Your task to perform on an android device: turn off priority inbox in the gmail app Image 0: 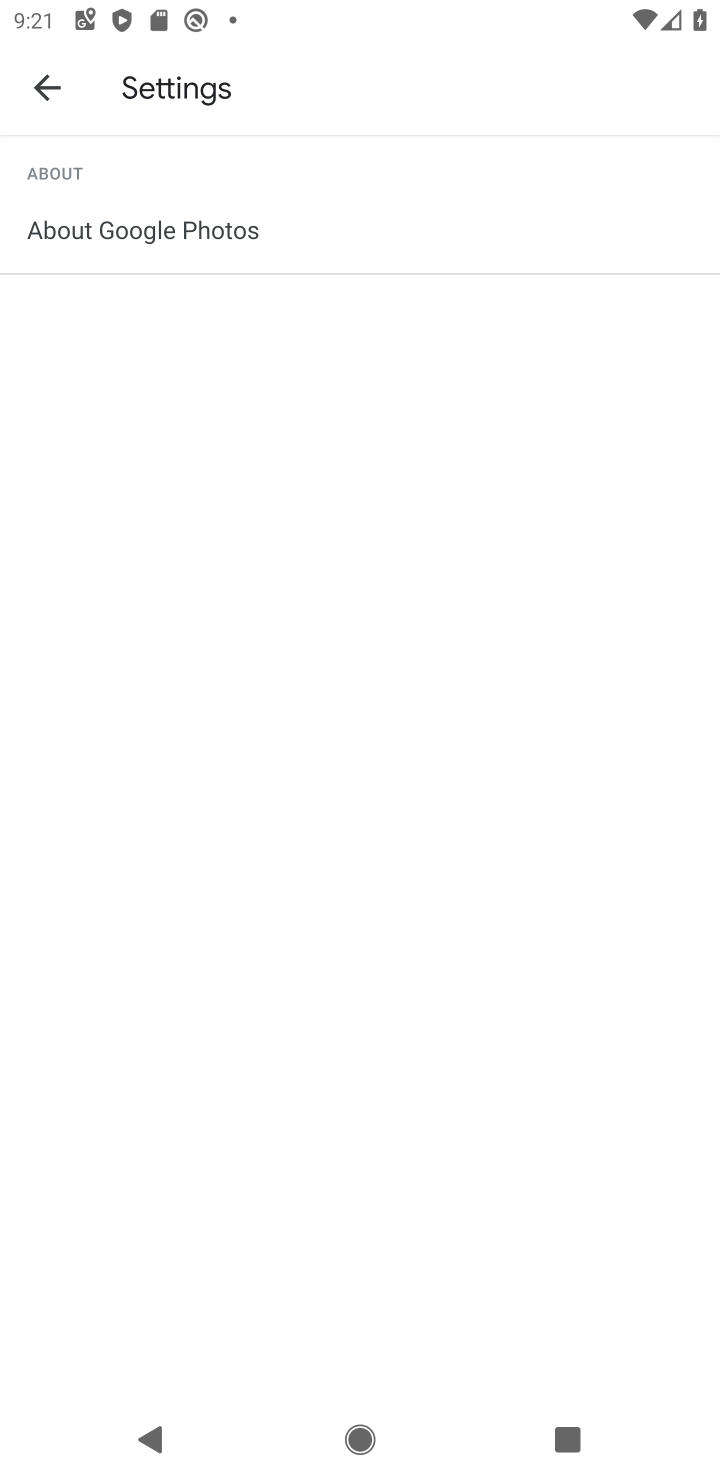
Step 0: press home button
Your task to perform on an android device: turn off priority inbox in the gmail app Image 1: 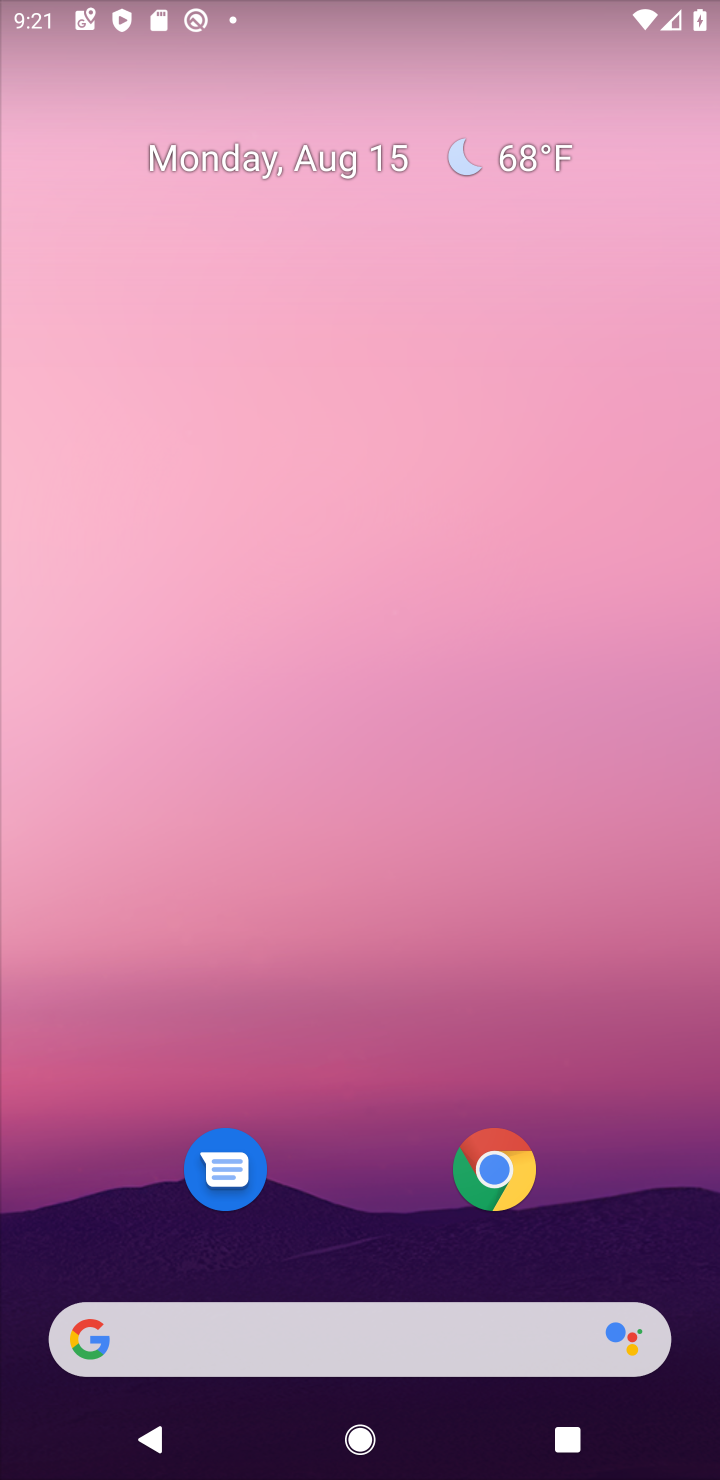
Step 1: drag from (403, 1310) to (668, 0)
Your task to perform on an android device: turn off priority inbox in the gmail app Image 2: 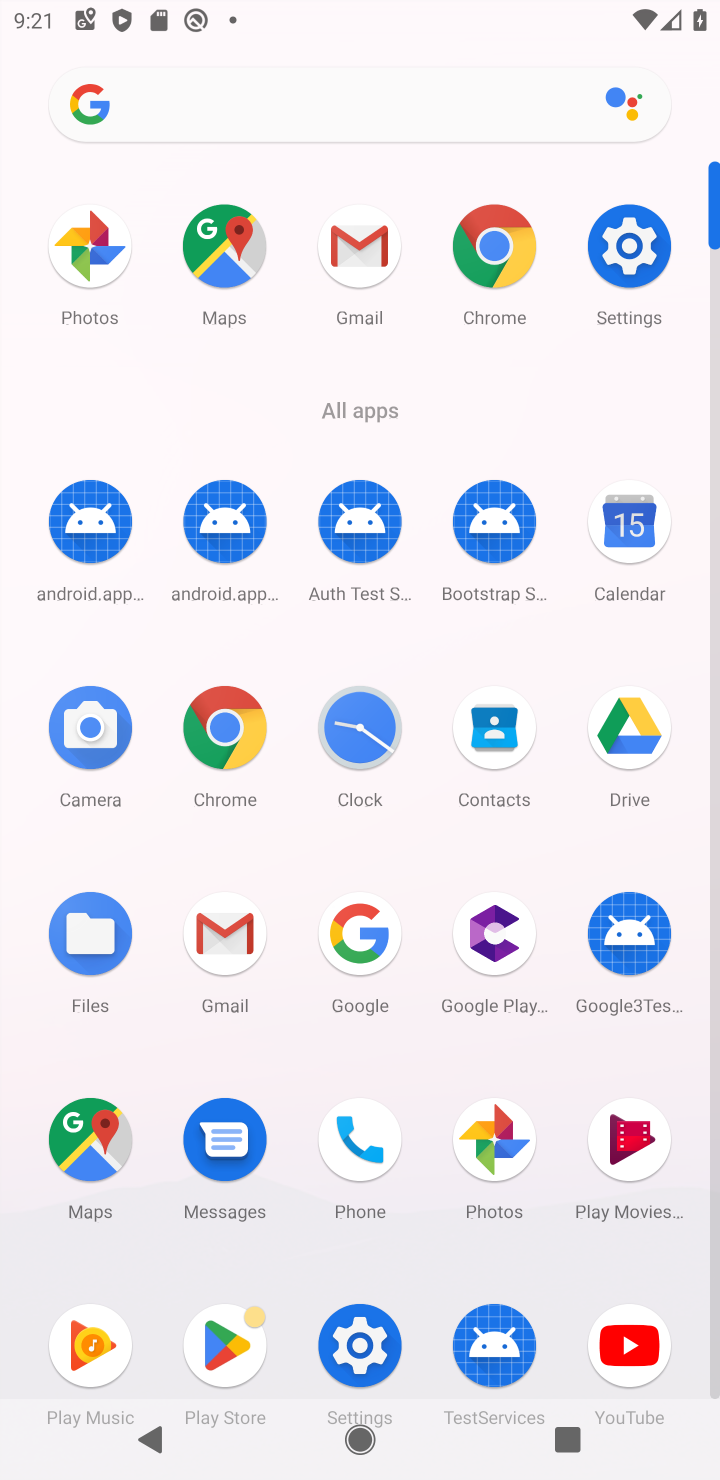
Step 2: click (357, 239)
Your task to perform on an android device: turn off priority inbox in the gmail app Image 3: 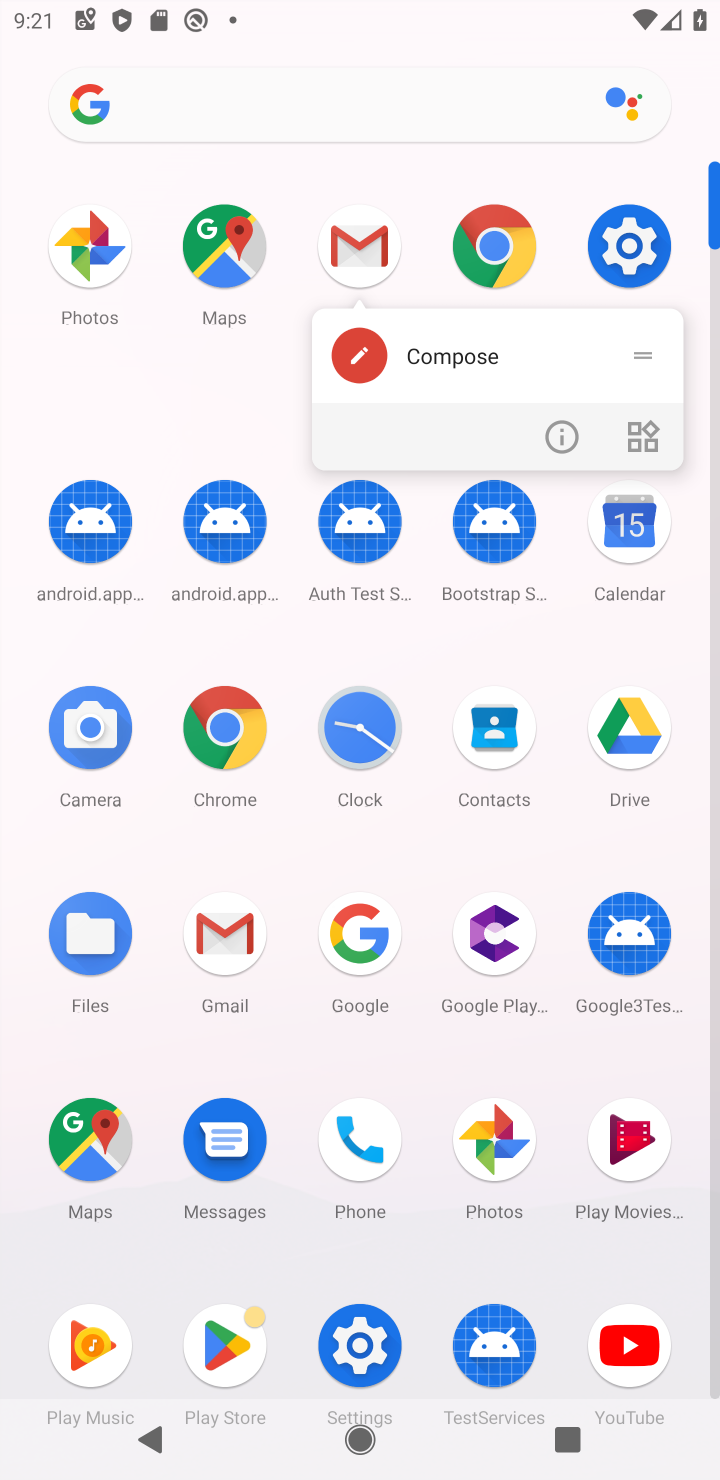
Step 3: click (357, 239)
Your task to perform on an android device: turn off priority inbox in the gmail app Image 4: 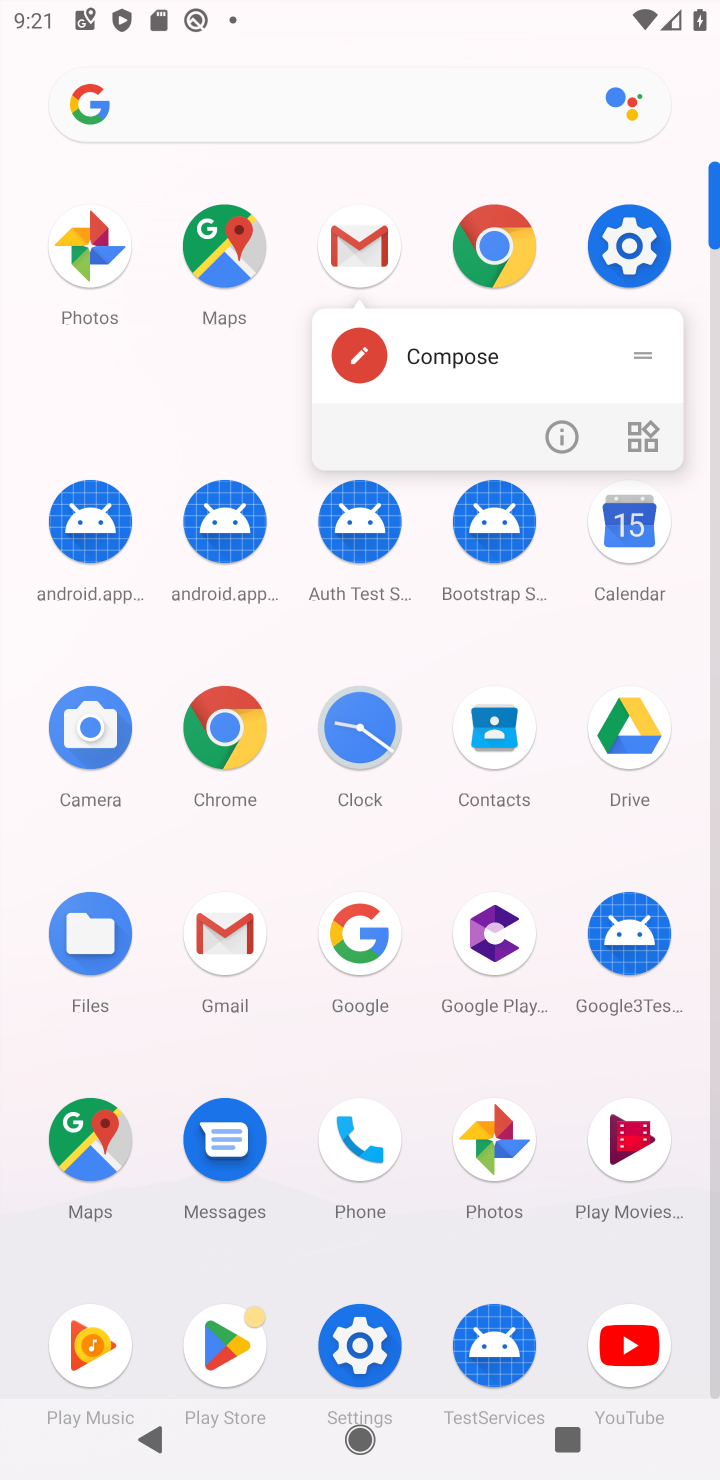
Step 4: click (357, 246)
Your task to perform on an android device: turn off priority inbox in the gmail app Image 5: 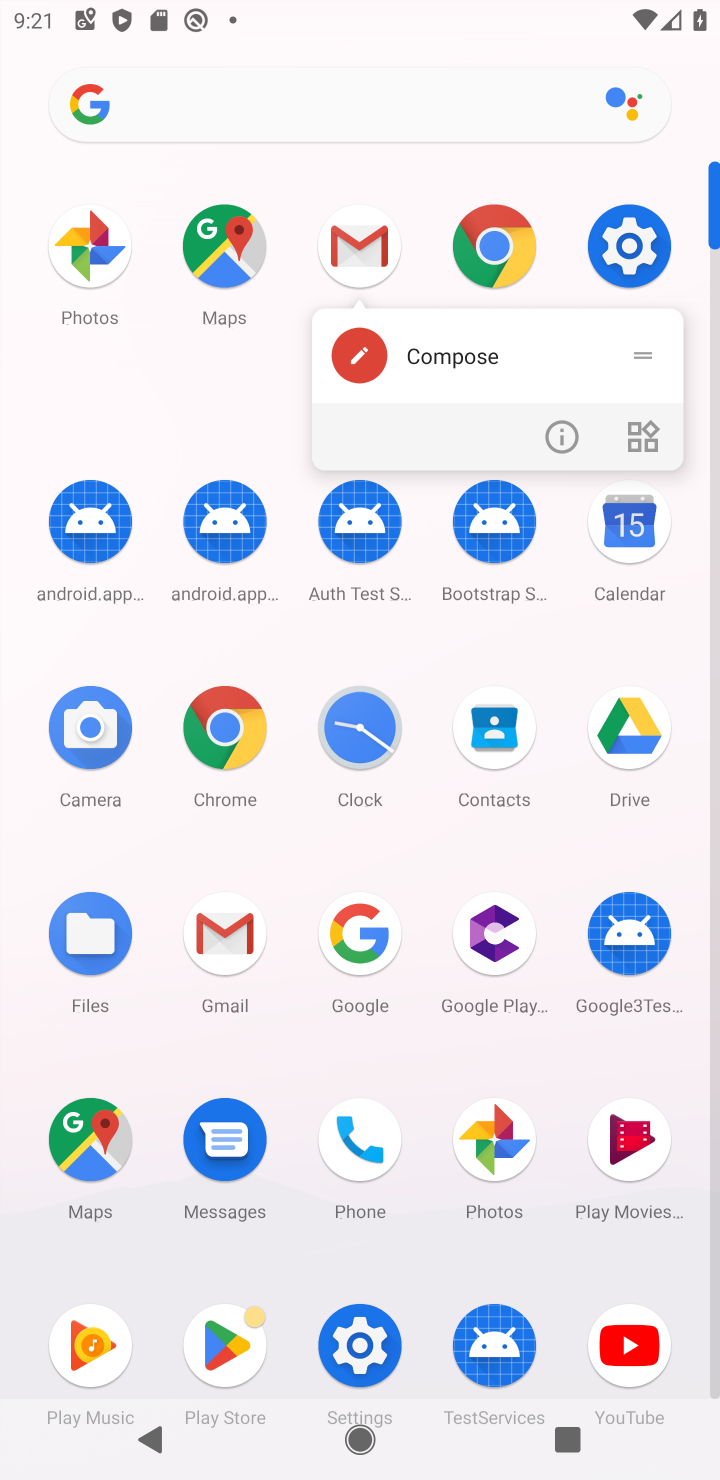
Step 5: click (357, 241)
Your task to perform on an android device: turn off priority inbox in the gmail app Image 6: 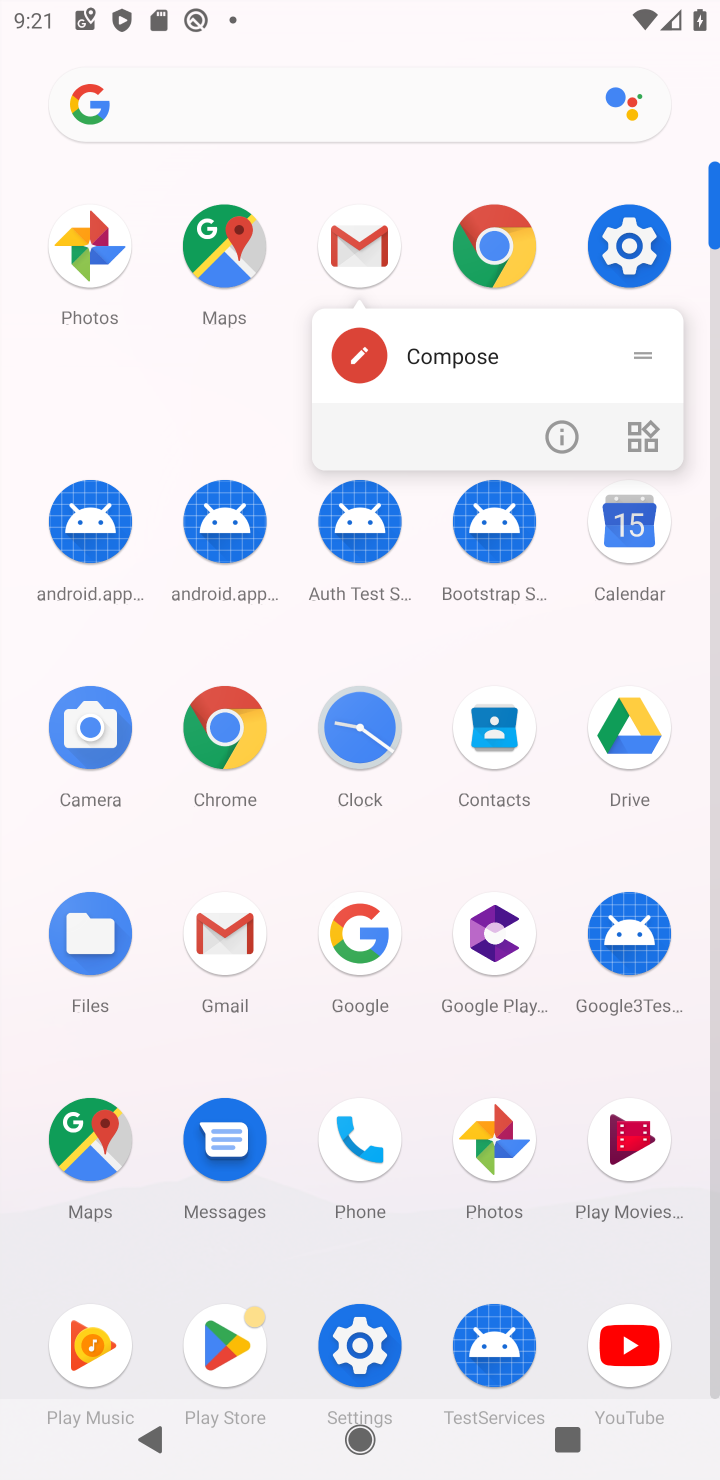
Step 6: click (355, 254)
Your task to perform on an android device: turn off priority inbox in the gmail app Image 7: 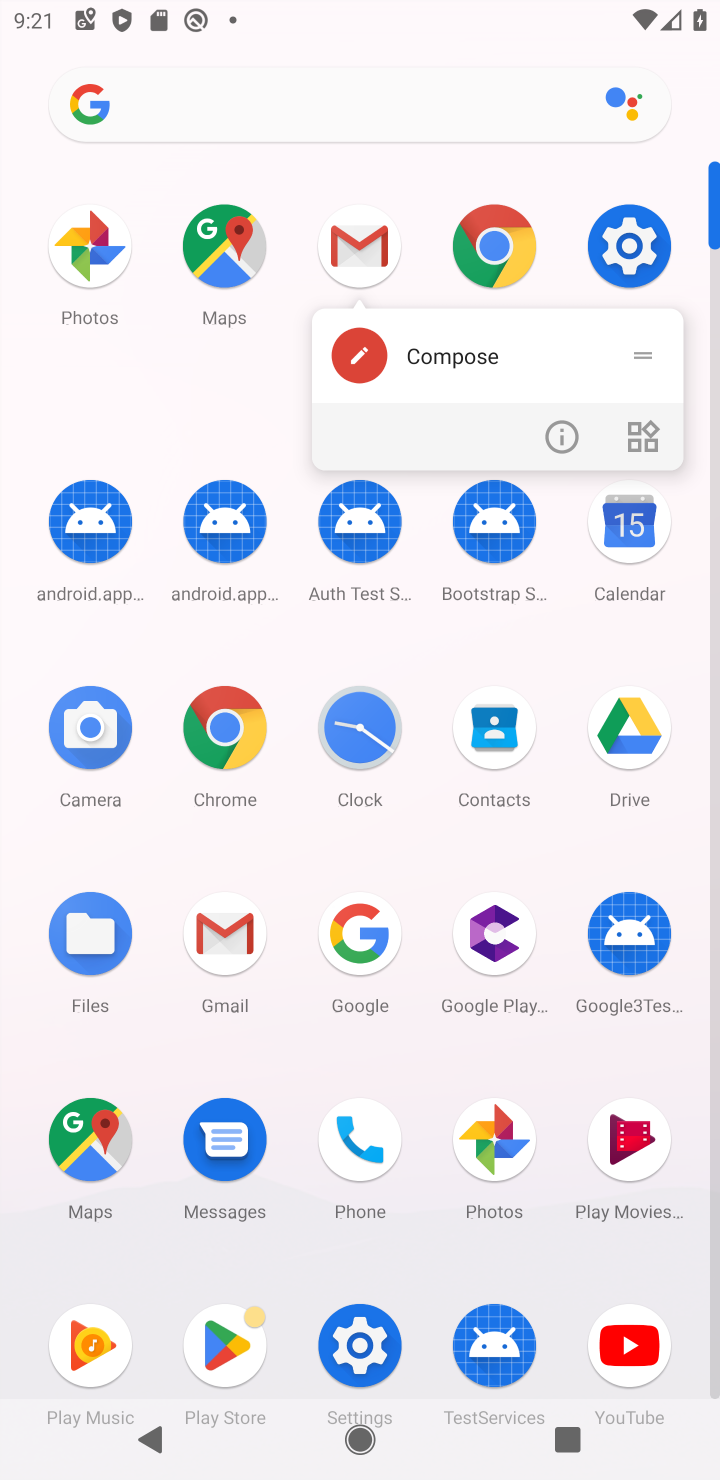
Step 7: click (353, 252)
Your task to perform on an android device: turn off priority inbox in the gmail app Image 8: 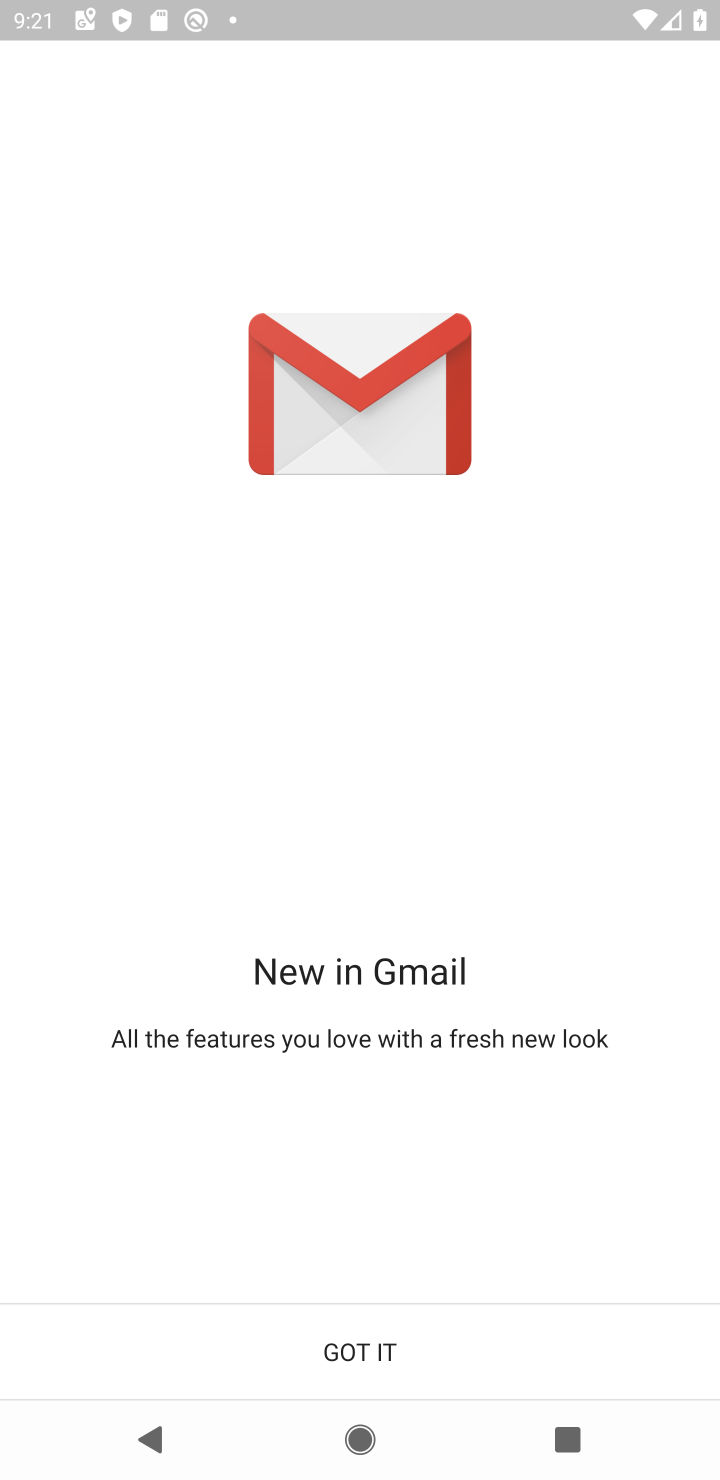
Step 8: click (339, 1365)
Your task to perform on an android device: turn off priority inbox in the gmail app Image 9: 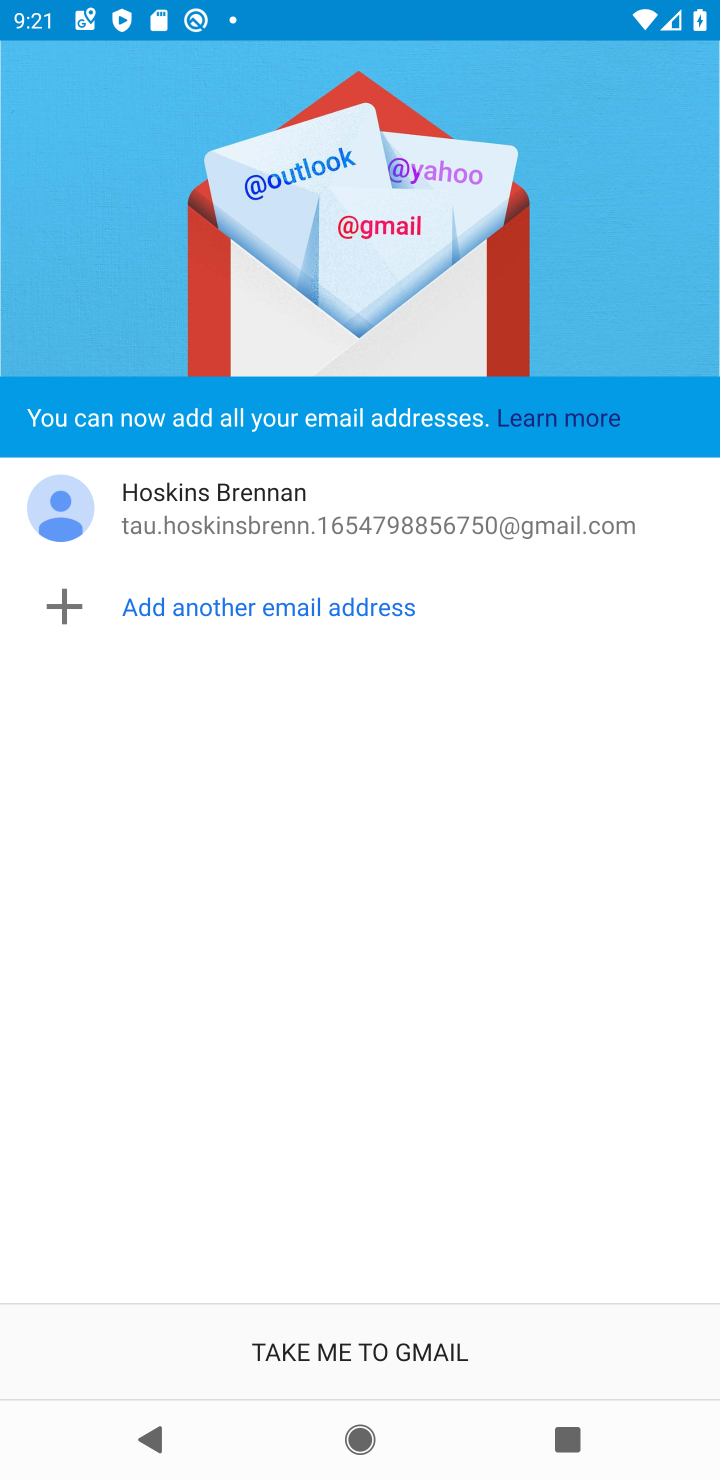
Step 9: click (345, 1334)
Your task to perform on an android device: turn off priority inbox in the gmail app Image 10: 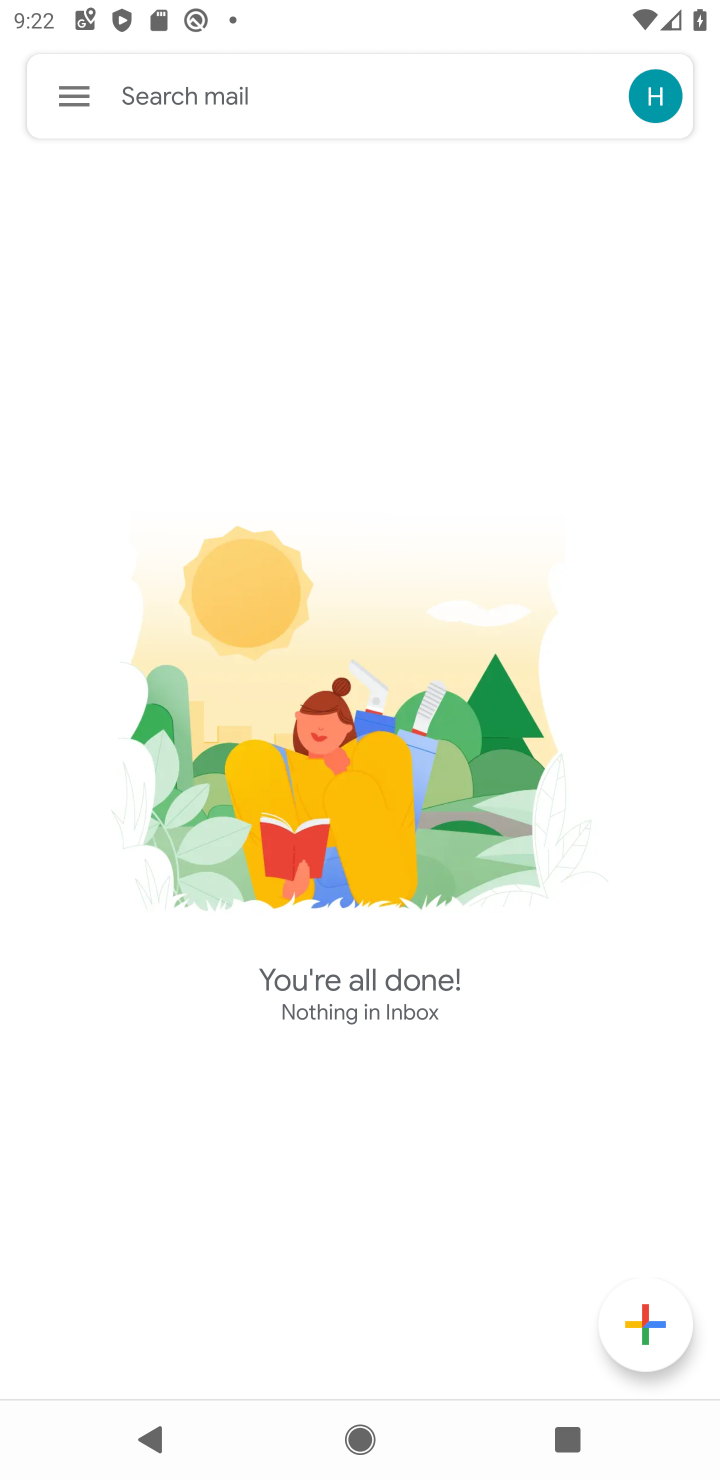
Step 10: click (81, 90)
Your task to perform on an android device: turn off priority inbox in the gmail app Image 11: 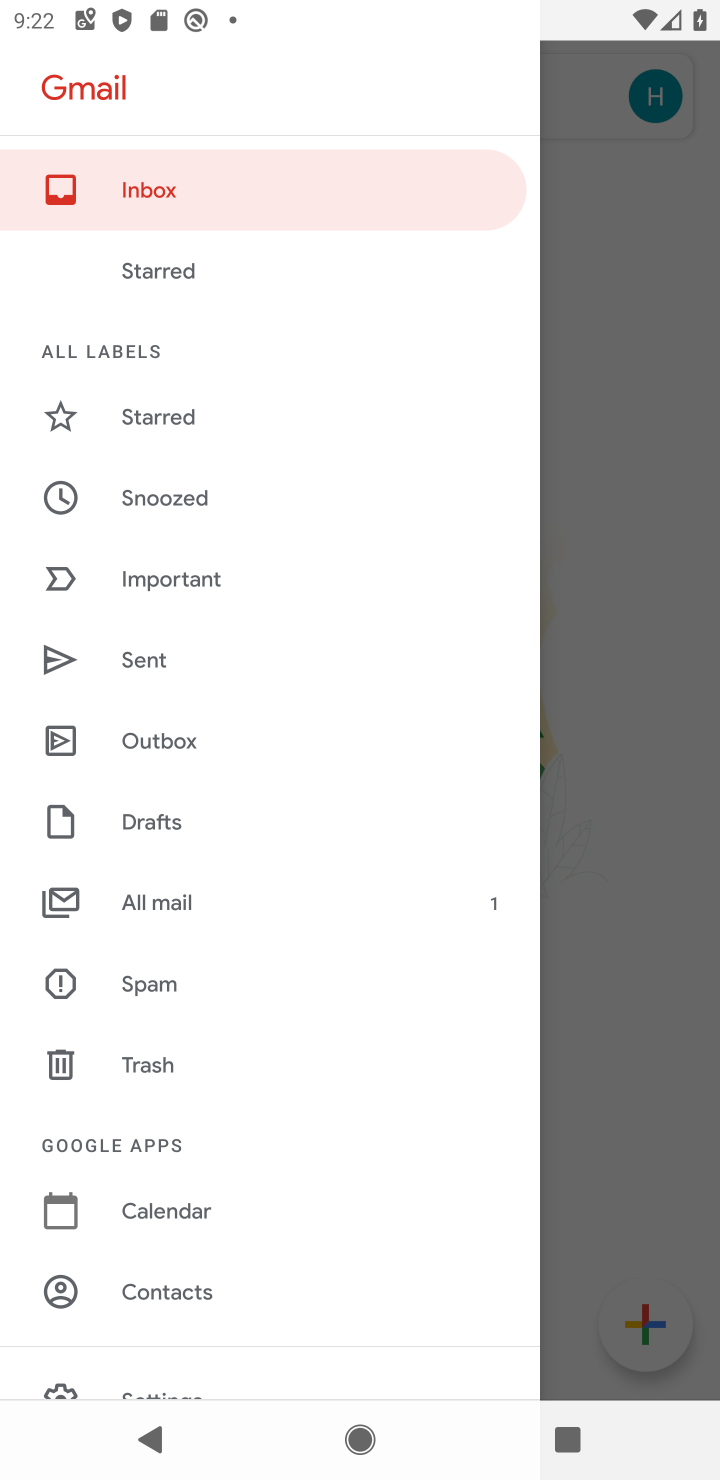
Step 11: drag from (269, 1278) to (335, 355)
Your task to perform on an android device: turn off priority inbox in the gmail app Image 12: 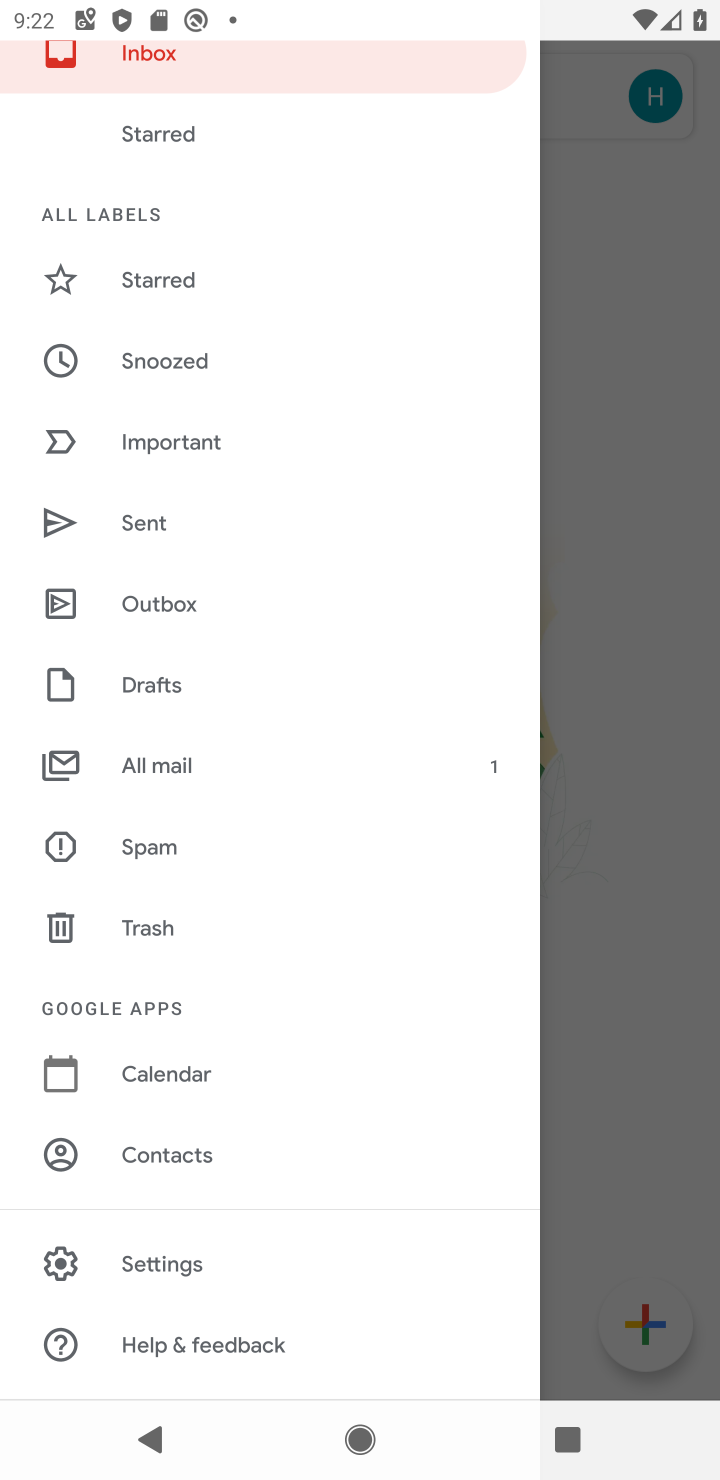
Step 12: click (187, 1263)
Your task to perform on an android device: turn off priority inbox in the gmail app Image 13: 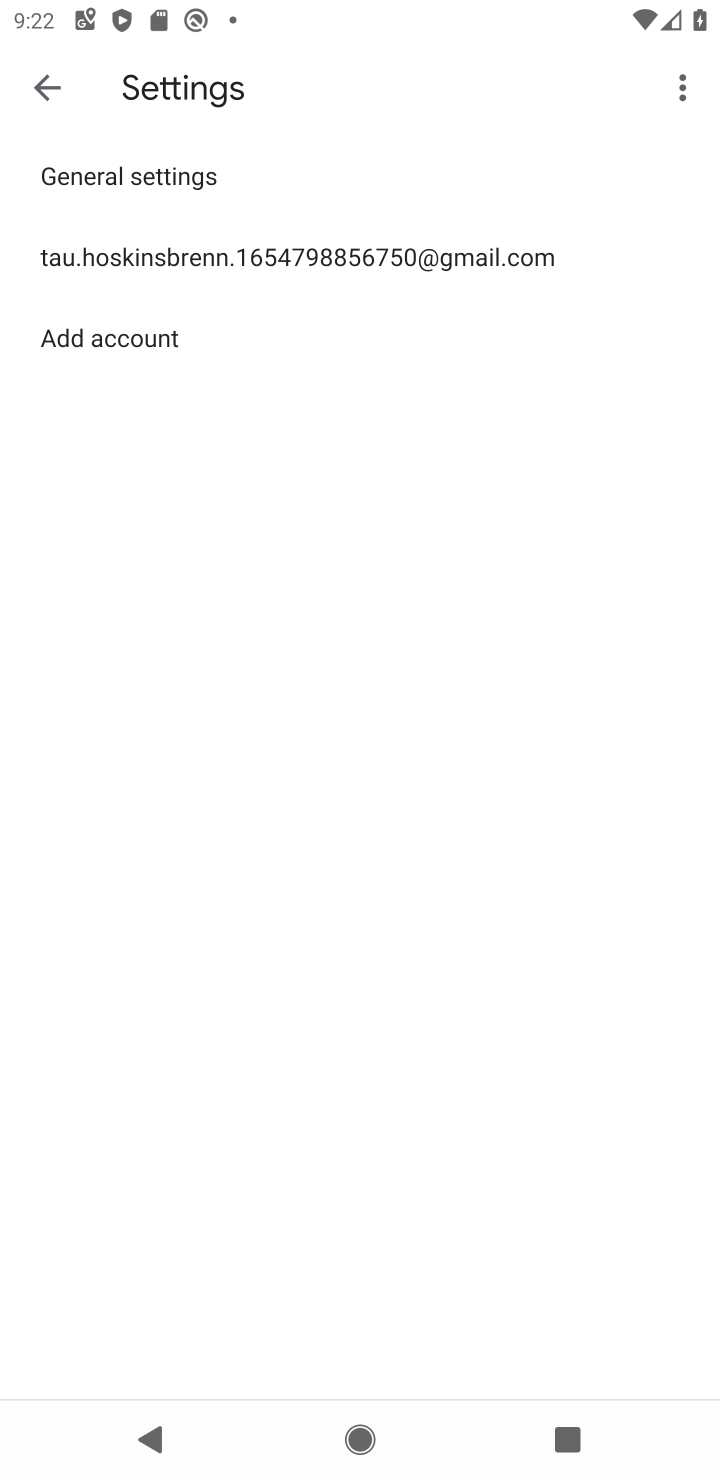
Step 13: click (453, 254)
Your task to perform on an android device: turn off priority inbox in the gmail app Image 14: 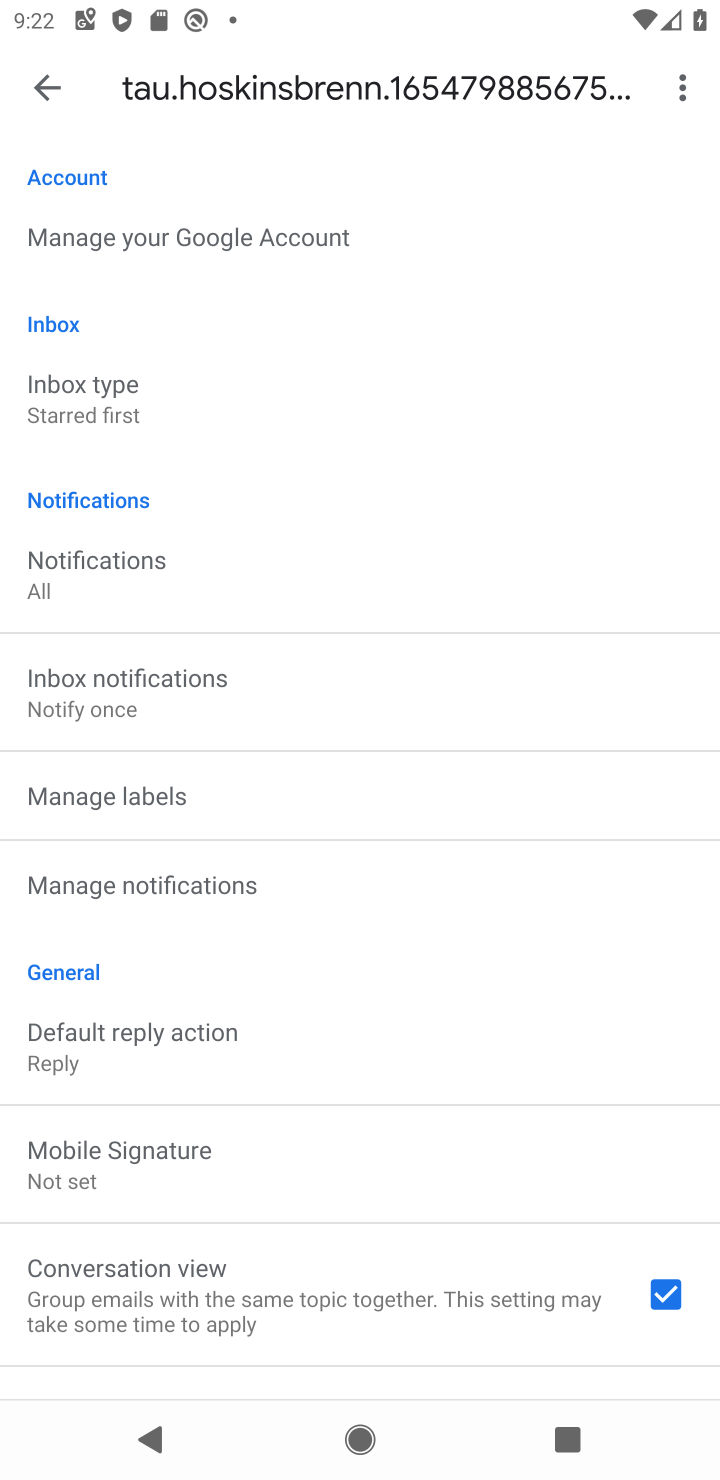
Step 14: click (116, 416)
Your task to perform on an android device: turn off priority inbox in the gmail app Image 15: 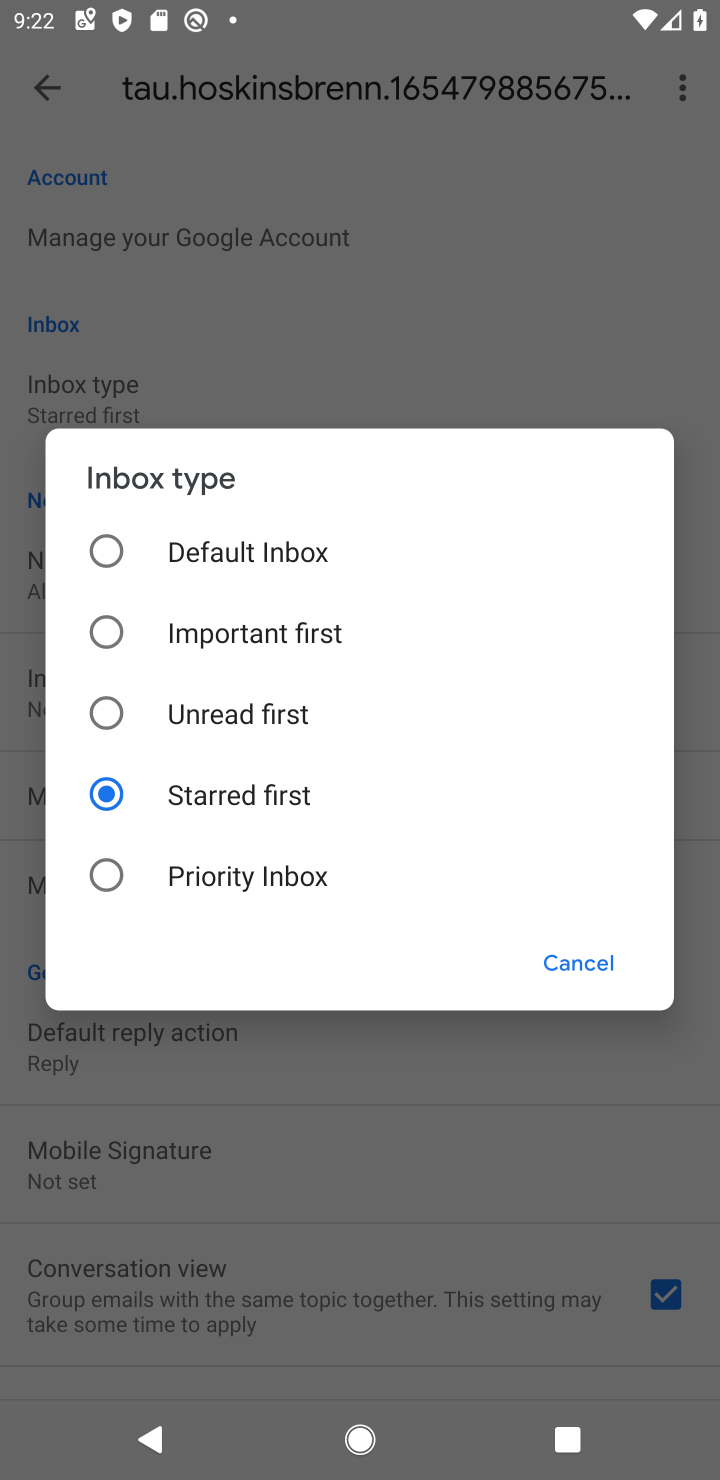
Step 15: task complete